Your task to perform on an android device: Add usb-a to the cart on ebay.com Image 0: 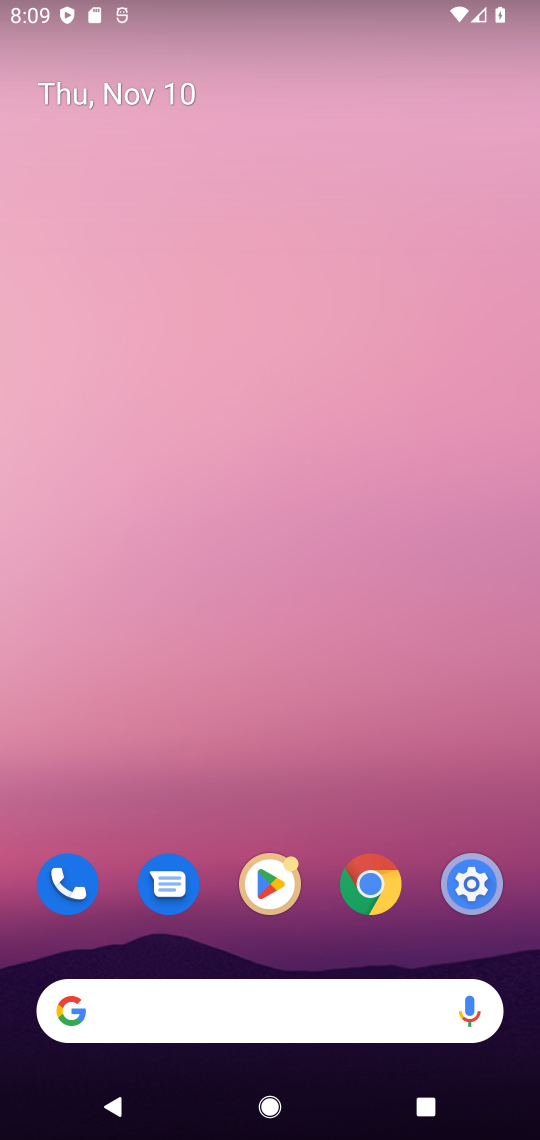
Step 0: click (247, 990)
Your task to perform on an android device: Add usb-a to the cart on ebay.com Image 1: 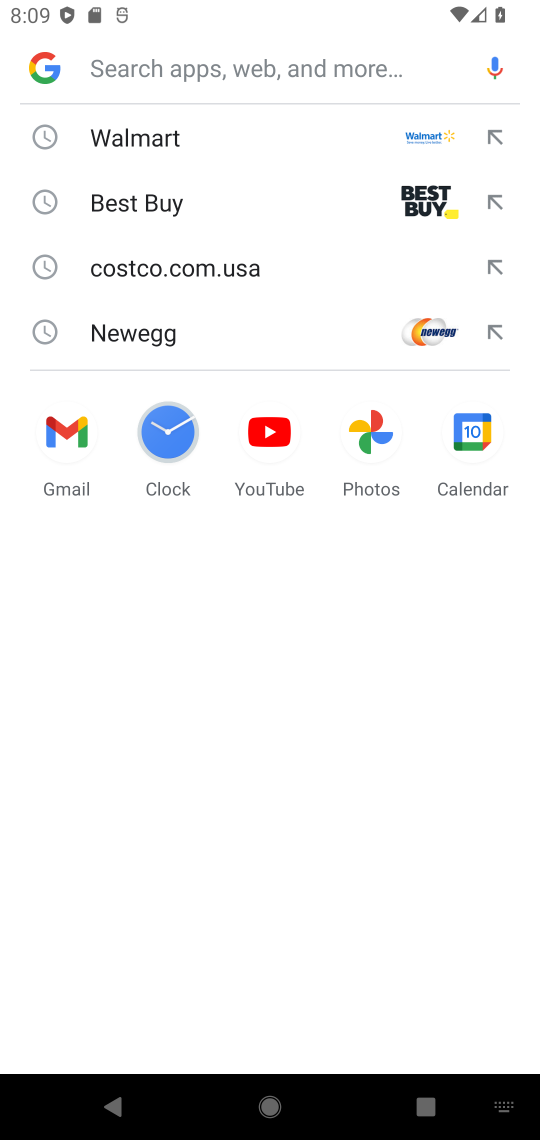
Step 1: type "walmart"
Your task to perform on an android device: Add usb-a to the cart on ebay.com Image 2: 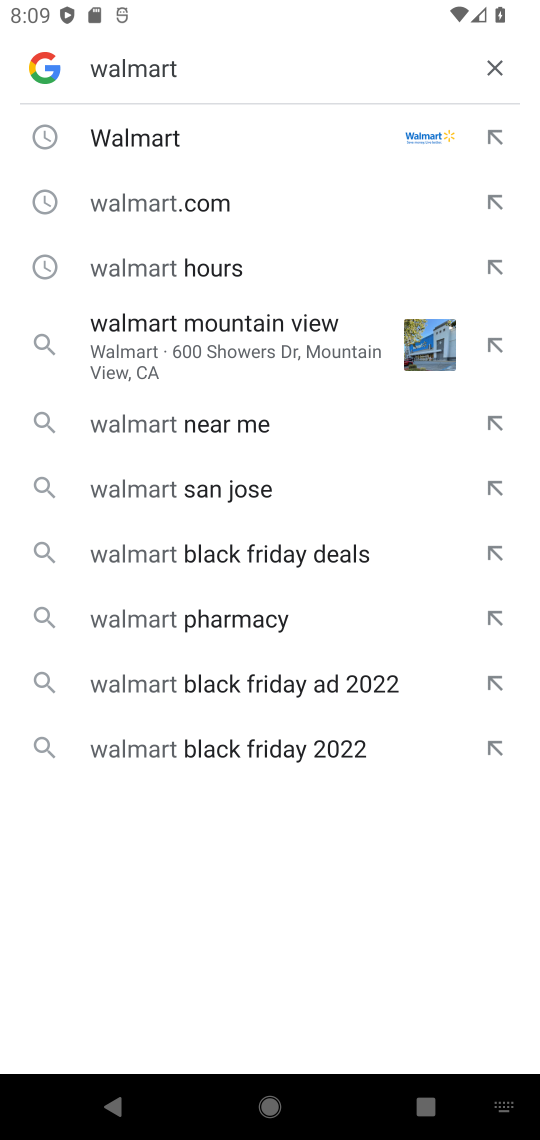
Step 2: click (496, 59)
Your task to perform on an android device: Add usb-a to the cart on ebay.com Image 3: 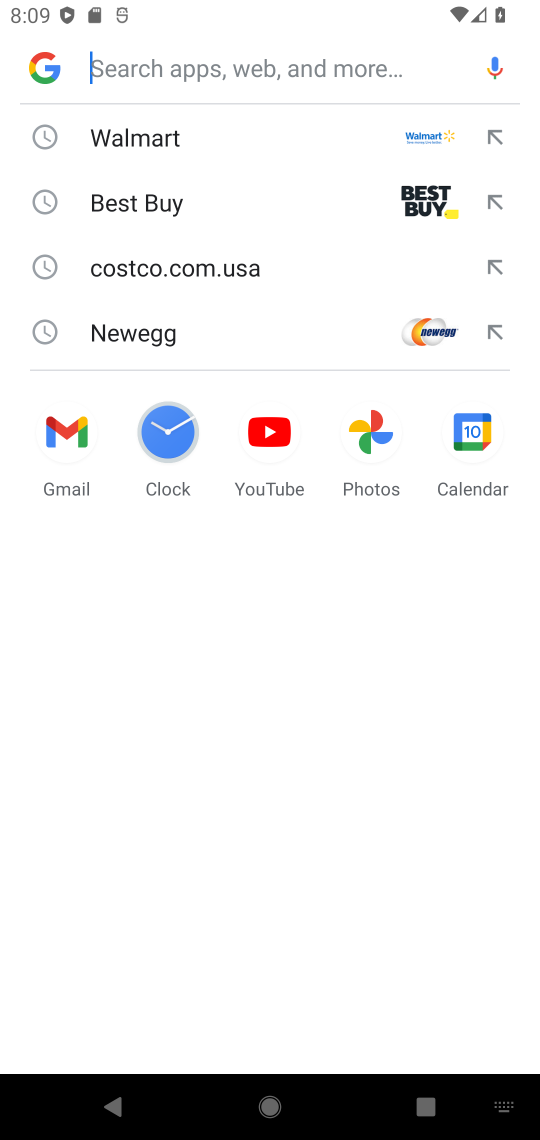
Step 3: type "ebay.com"
Your task to perform on an android device: Add usb-a to the cart on ebay.com Image 4: 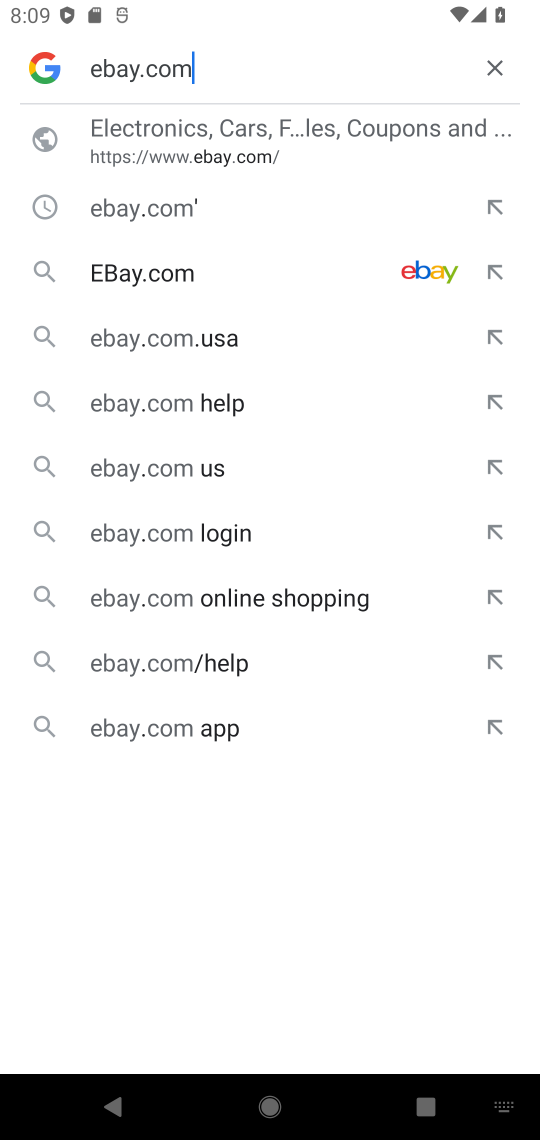
Step 4: click (165, 267)
Your task to perform on an android device: Add usb-a to the cart on ebay.com Image 5: 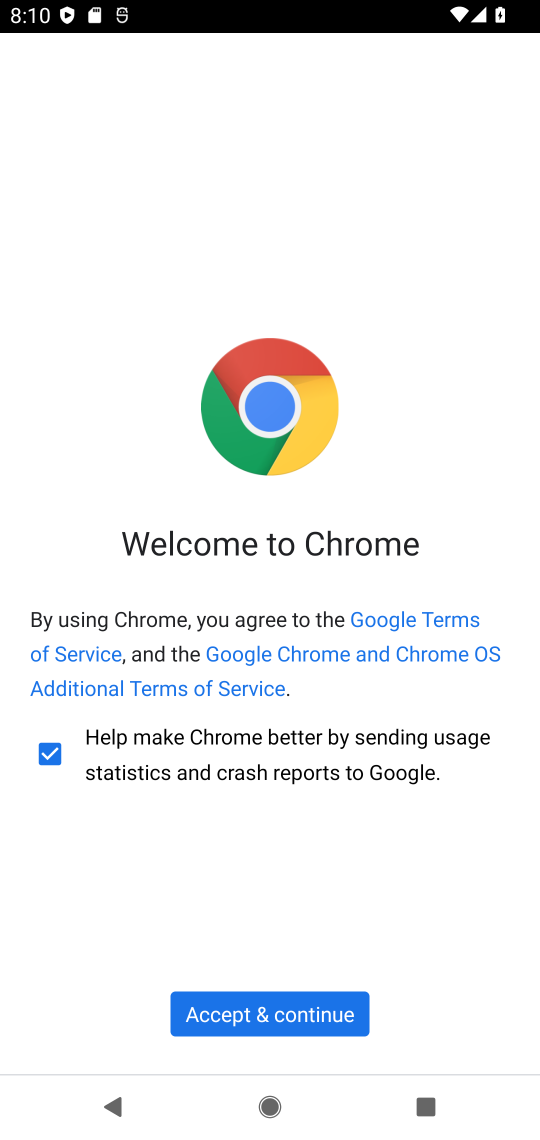
Step 5: click (290, 1010)
Your task to perform on an android device: Add usb-a to the cart on ebay.com Image 6: 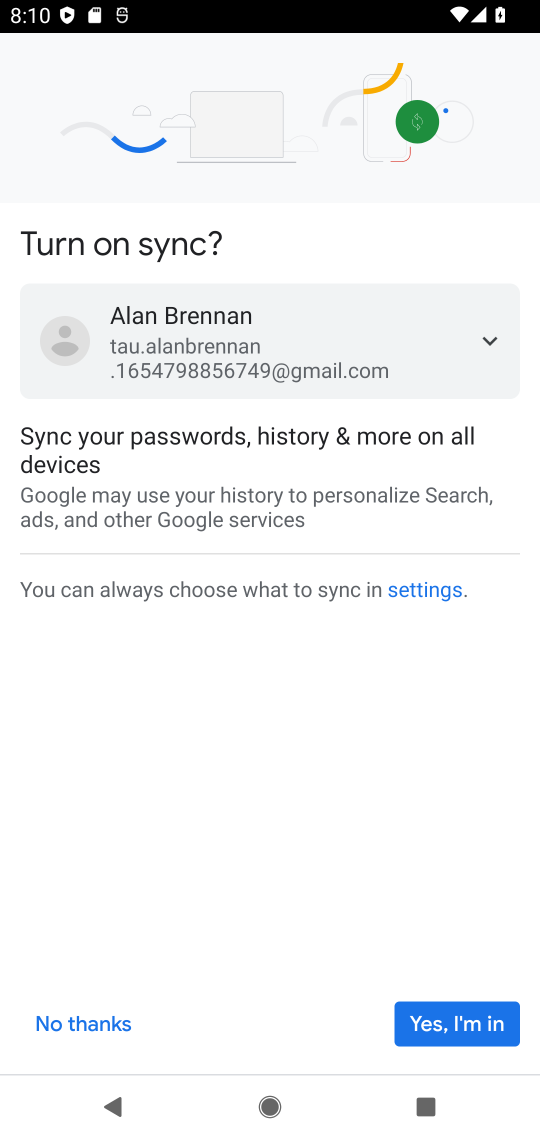
Step 6: click (440, 1038)
Your task to perform on an android device: Add usb-a to the cart on ebay.com Image 7: 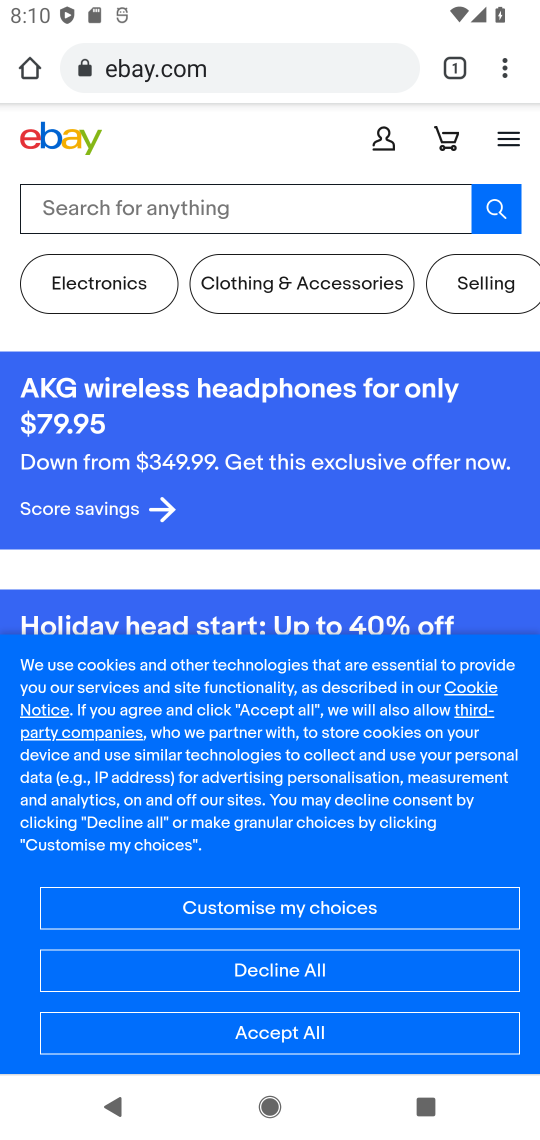
Step 7: click (204, 193)
Your task to perform on an android device: Add usb-a to the cart on ebay.com Image 8: 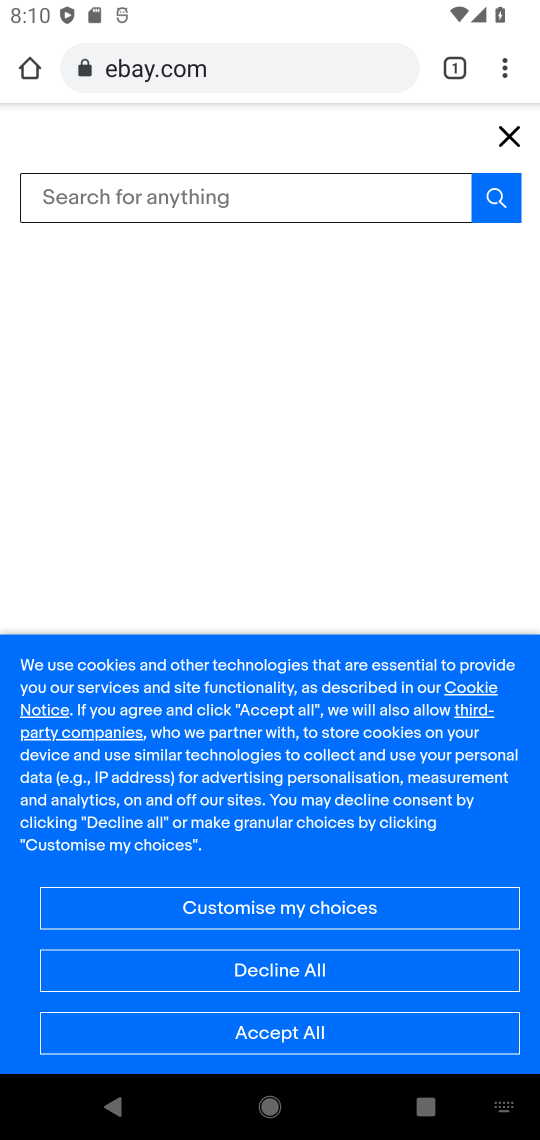
Step 8: type "usb-a "
Your task to perform on an android device: Add usb-a to the cart on ebay.com Image 9: 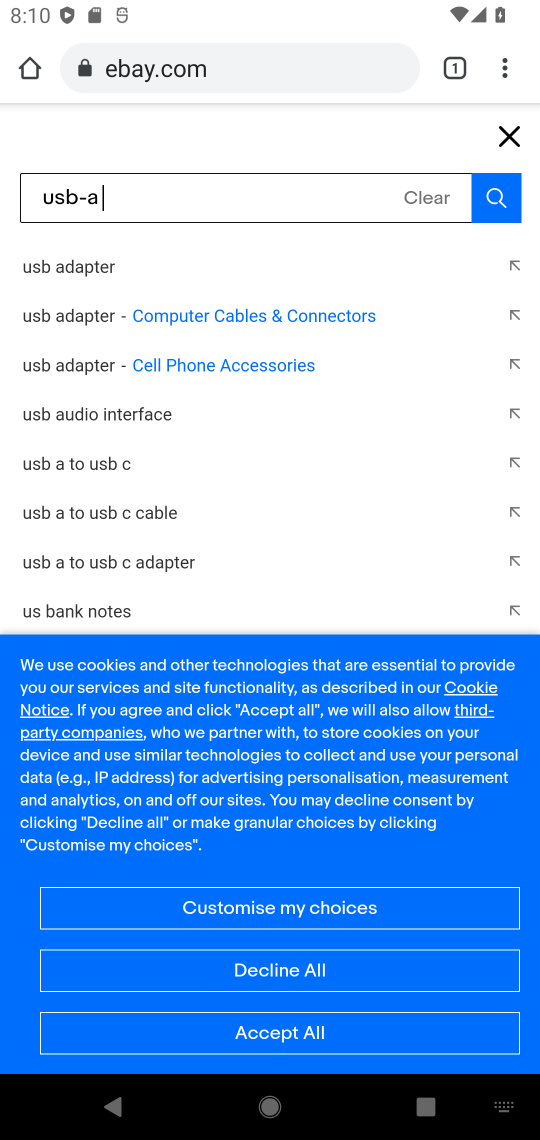
Step 9: click (237, 982)
Your task to perform on an android device: Add usb-a to the cart on ebay.com Image 10: 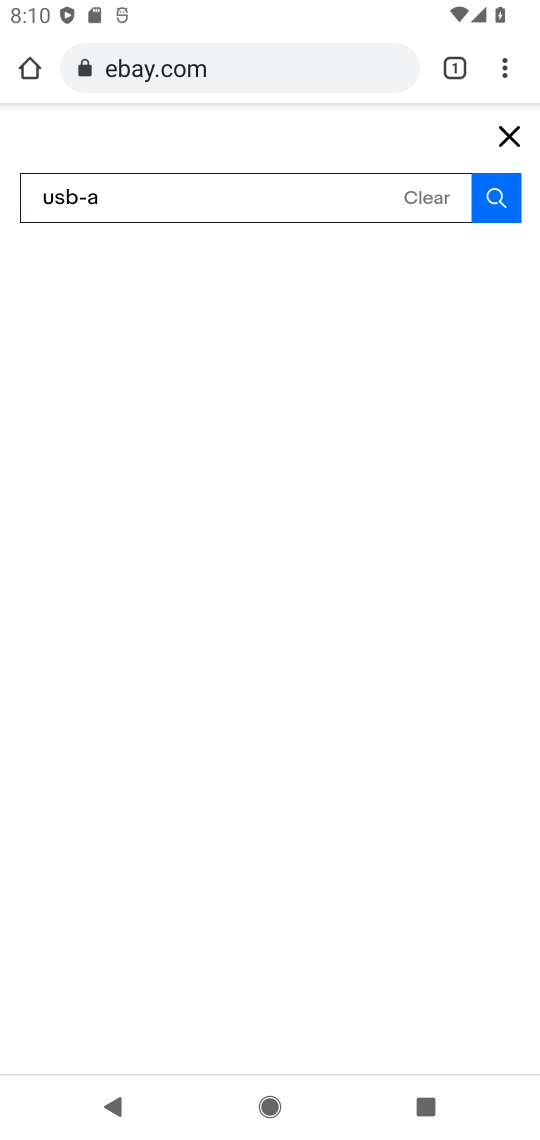
Step 10: click (486, 200)
Your task to perform on an android device: Add usb-a to the cart on ebay.com Image 11: 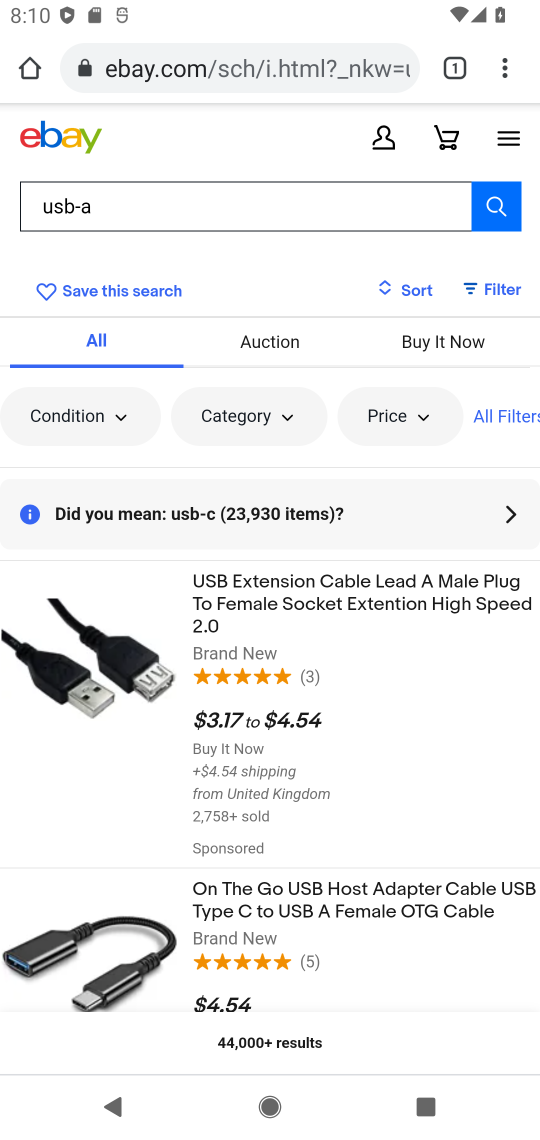
Step 11: click (128, 658)
Your task to perform on an android device: Add usb-a to the cart on ebay.com Image 12: 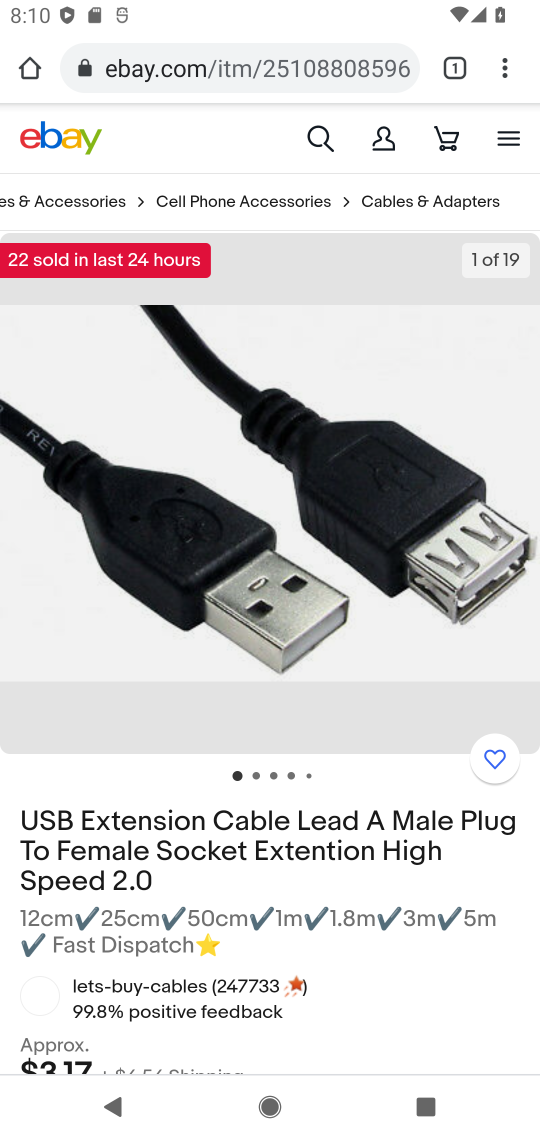
Step 12: drag from (278, 830) to (284, 477)
Your task to perform on an android device: Add usb-a to the cart on ebay.com Image 13: 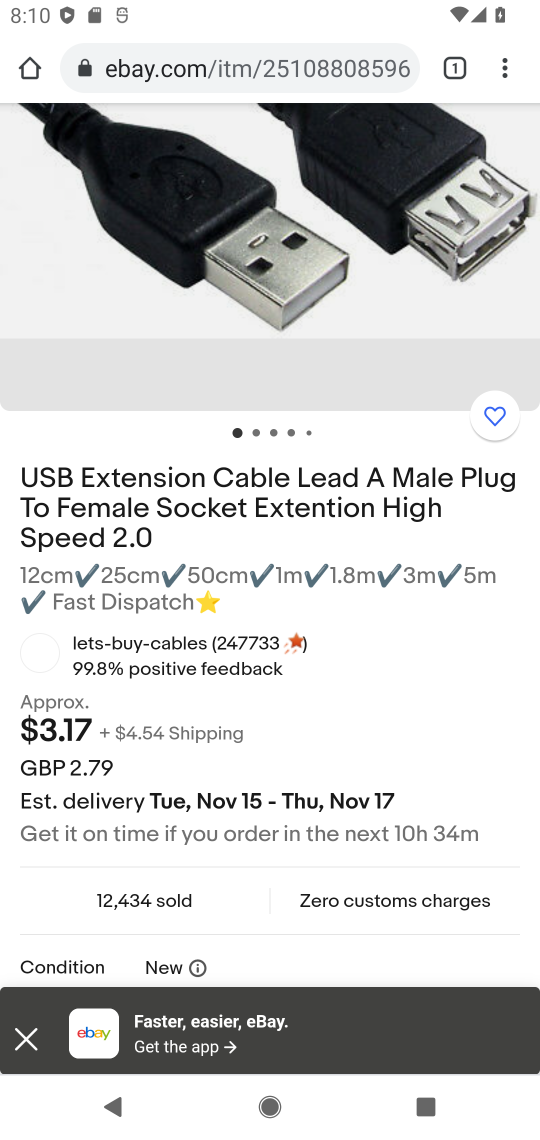
Step 13: drag from (332, 664) to (334, 370)
Your task to perform on an android device: Add usb-a to the cart on ebay.com Image 14: 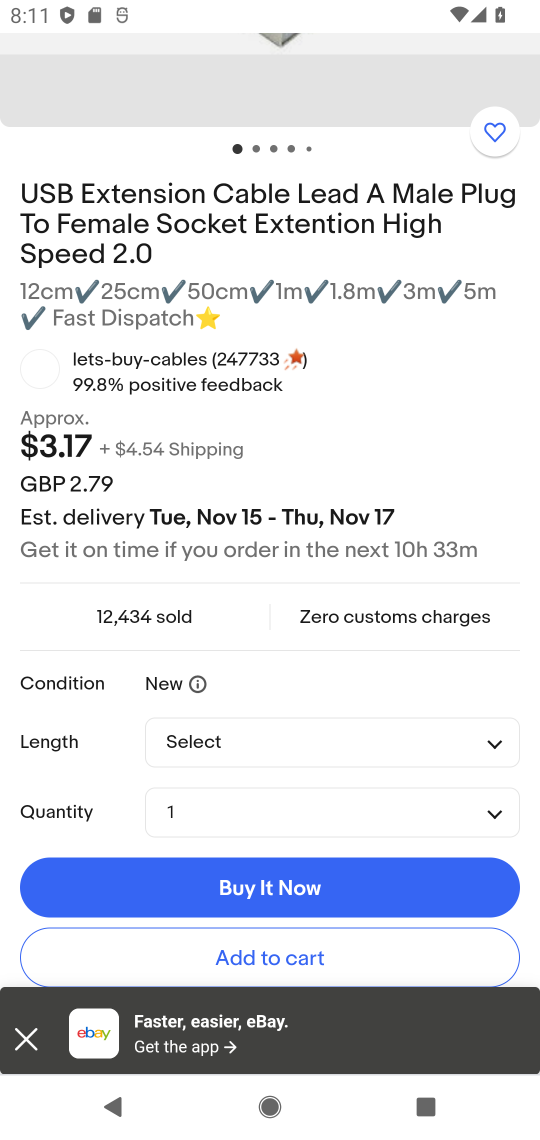
Step 14: click (253, 953)
Your task to perform on an android device: Add usb-a to the cart on ebay.com Image 15: 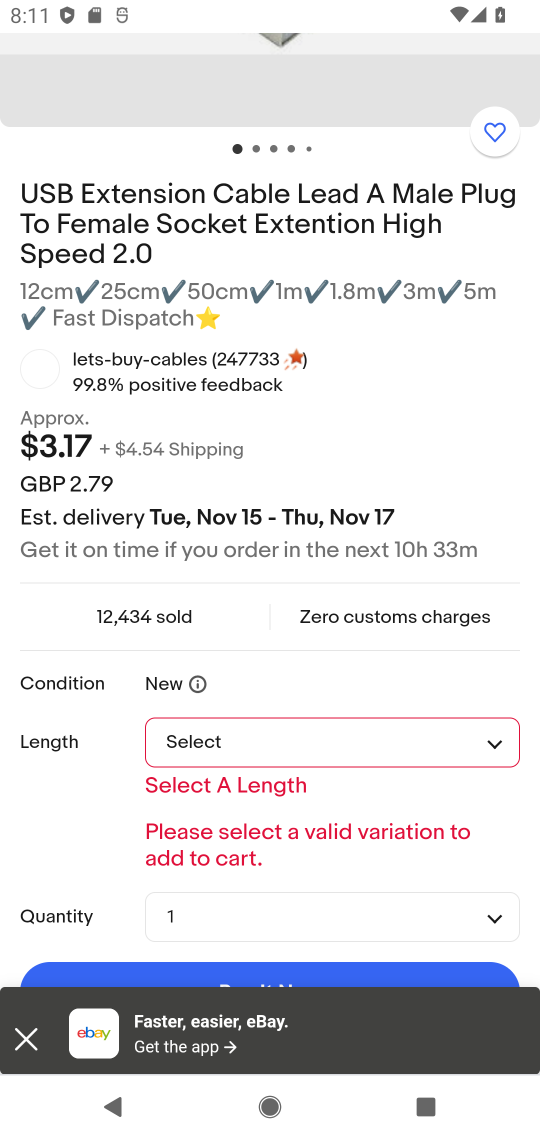
Step 15: click (495, 751)
Your task to perform on an android device: Add usb-a to the cart on ebay.com Image 16: 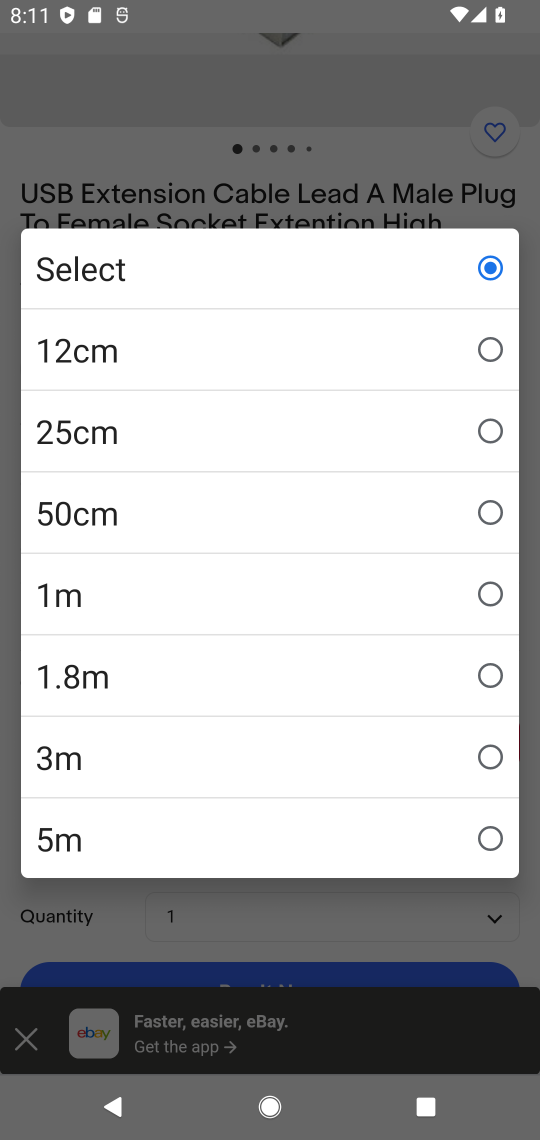
Step 16: click (133, 578)
Your task to perform on an android device: Add usb-a to the cart on ebay.com Image 17: 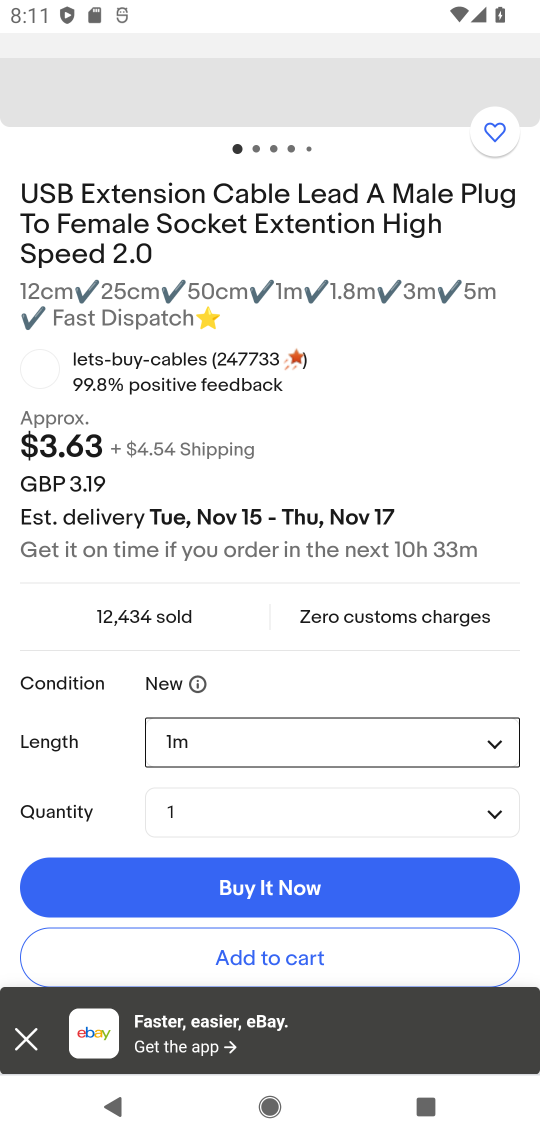
Step 17: click (256, 945)
Your task to perform on an android device: Add usb-a to the cart on ebay.com Image 18: 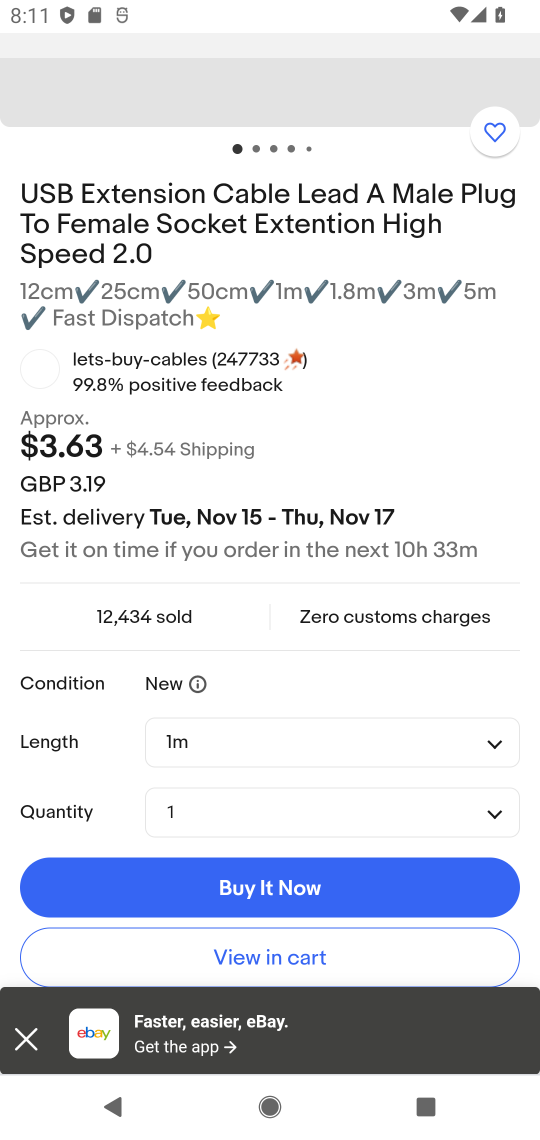
Step 18: task complete